Your task to perform on an android device: open app "Cash App" (install if not already installed) Image 0: 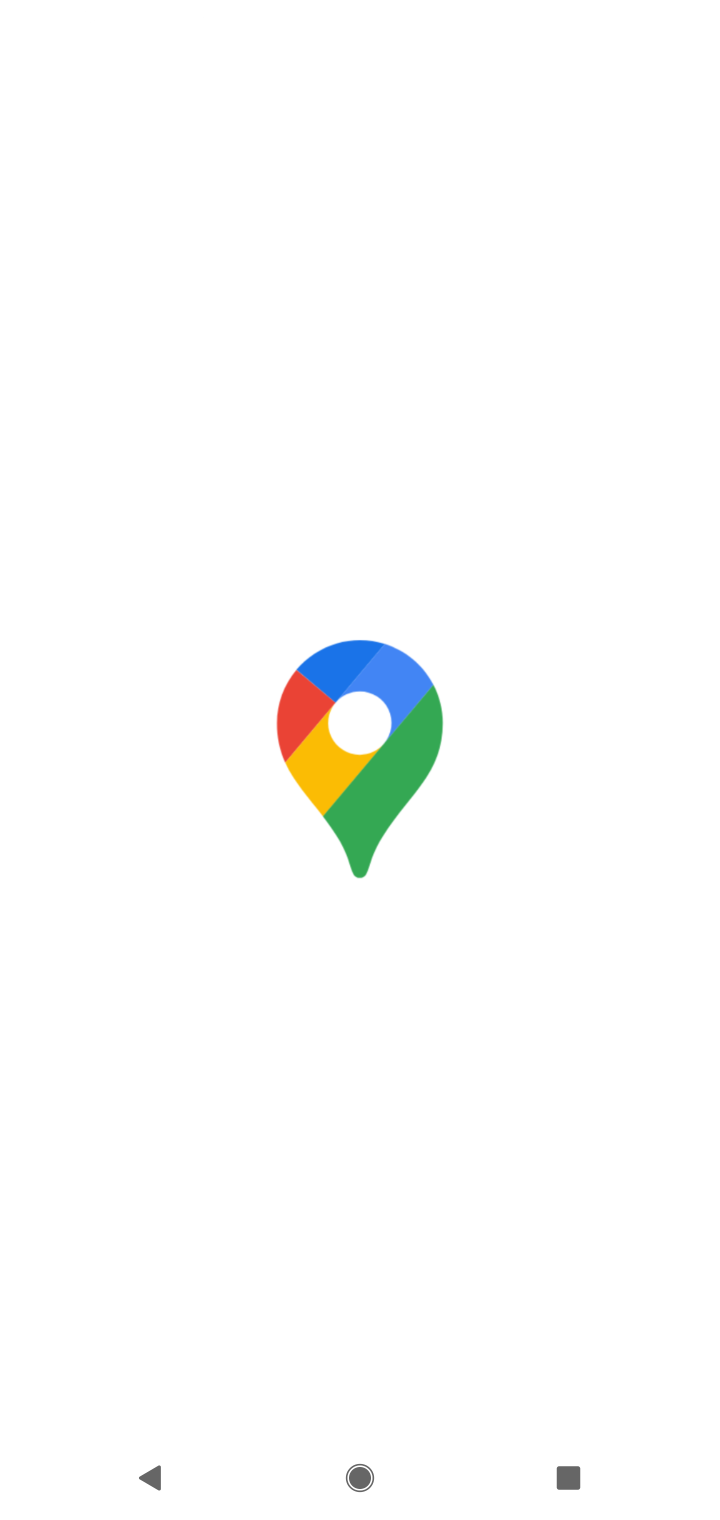
Step 0: press home button
Your task to perform on an android device: open app "Cash App" (install if not already installed) Image 1: 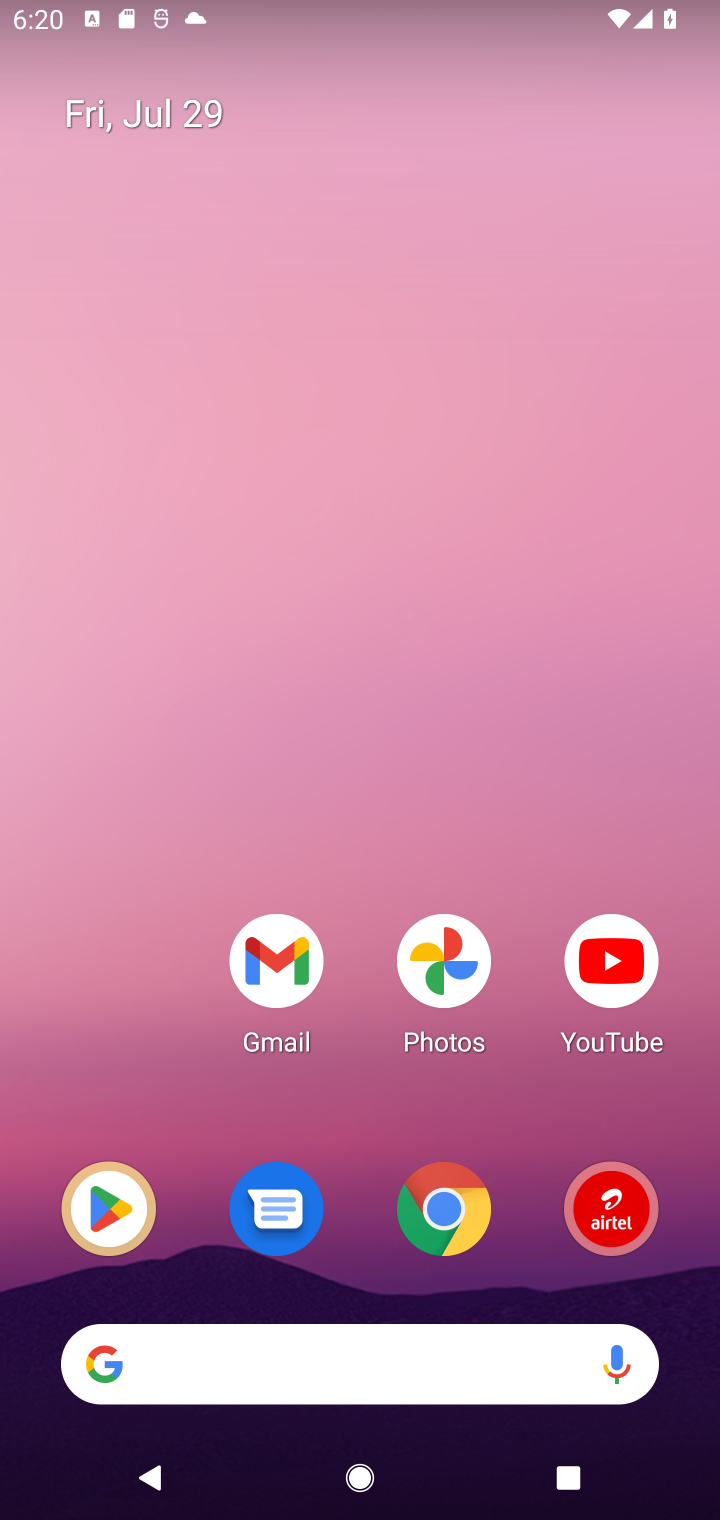
Step 1: click (109, 1208)
Your task to perform on an android device: open app "Cash App" (install if not already installed) Image 2: 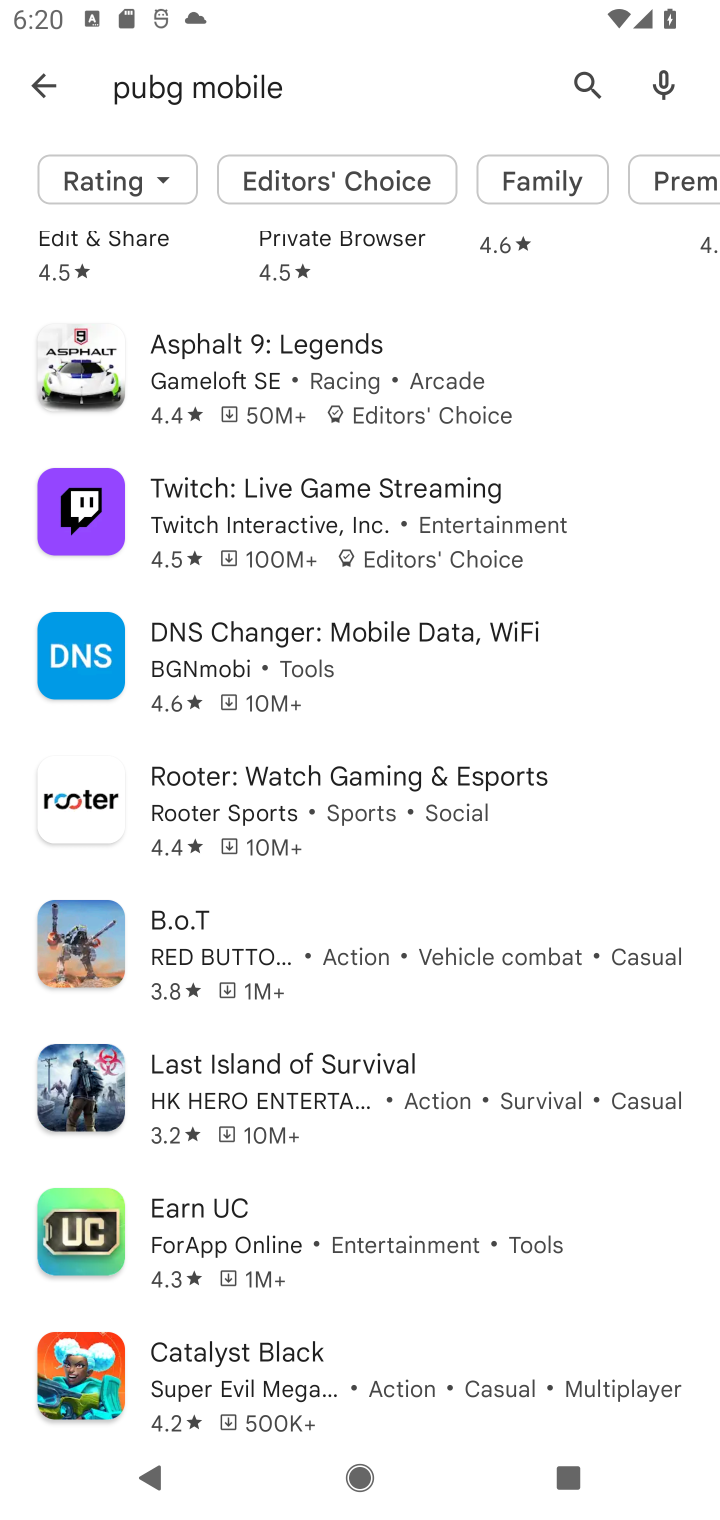
Step 2: click (578, 91)
Your task to perform on an android device: open app "Cash App" (install if not already installed) Image 3: 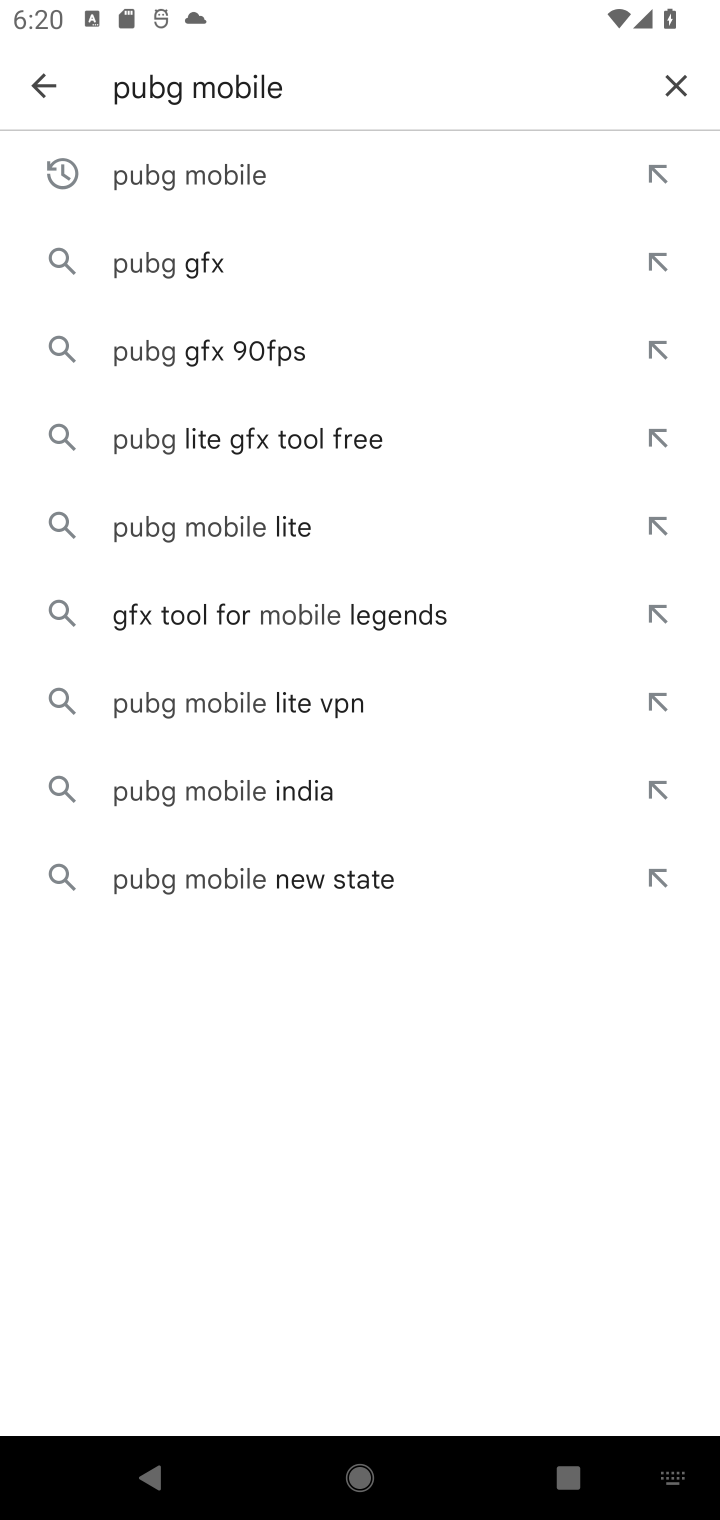
Step 3: click (659, 82)
Your task to perform on an android device: open app "Cash App" (install if not already installed) Image 4: 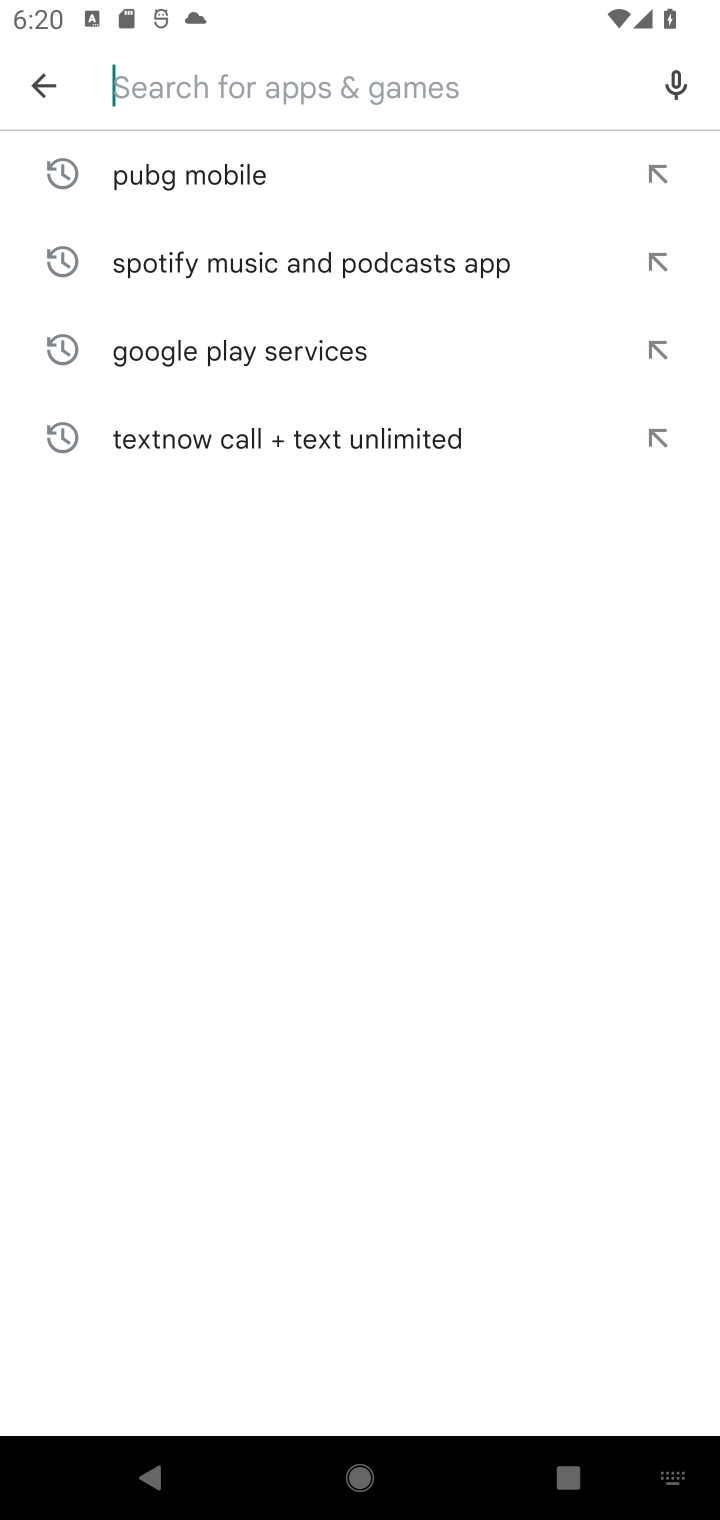
Step 4: type "Cash App"
Your task to perform on an android device: open app "Cash App" (install if not already installed) Image 5: 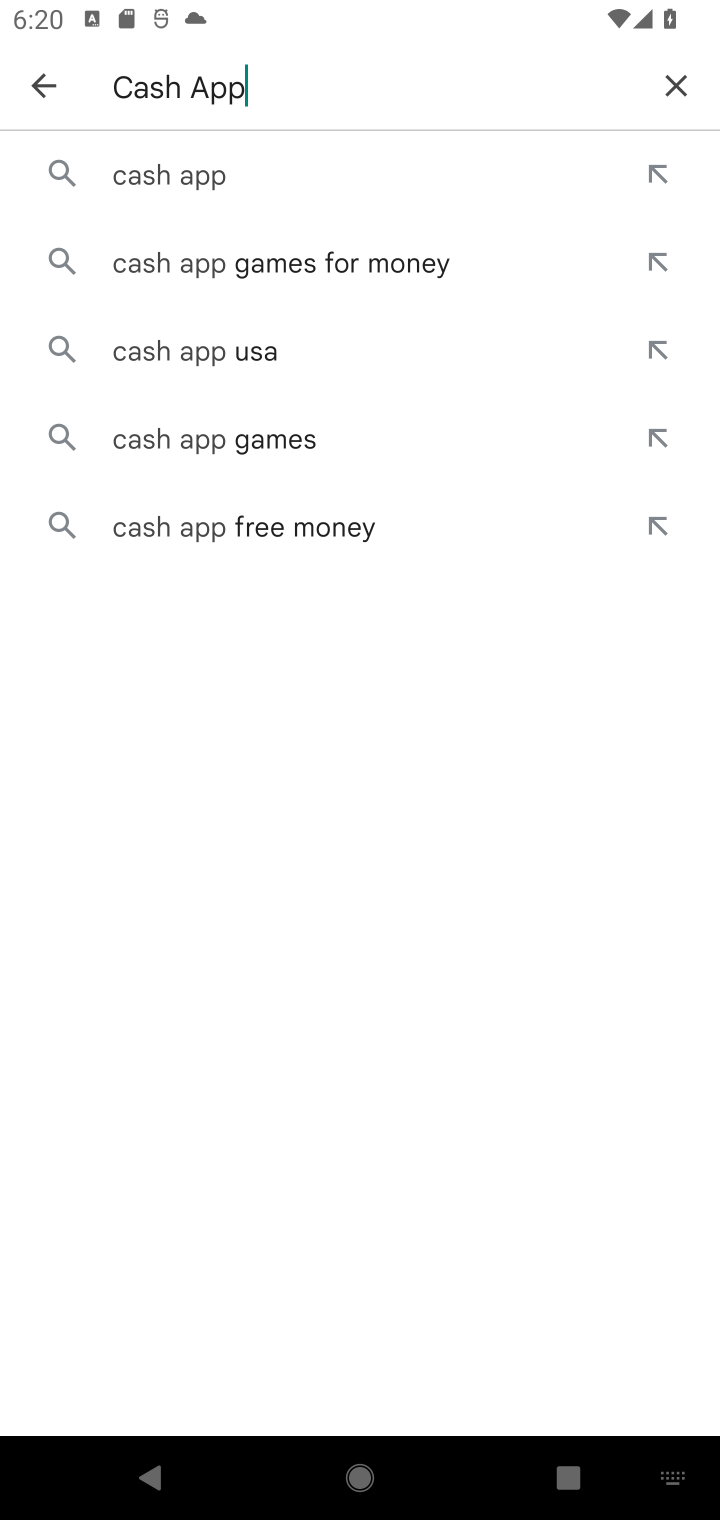
Step 5: click (171, 187)
Your task to perform on an android device: open app "Cash App" (install if not already installed) Image 6: 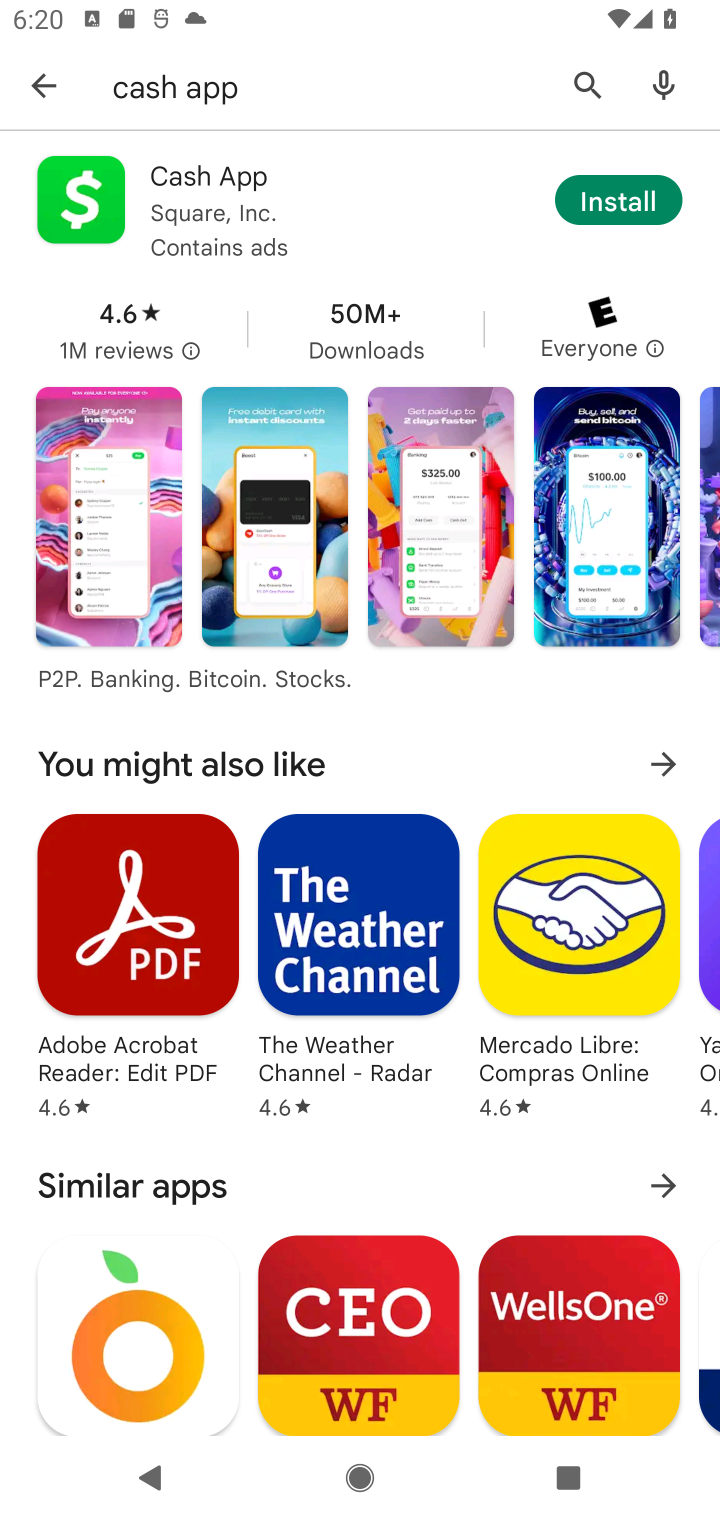
Step 6: click (612, 210)
Your task to perform on an android device: open app "Cash App" (install if not already installed) Image 7: 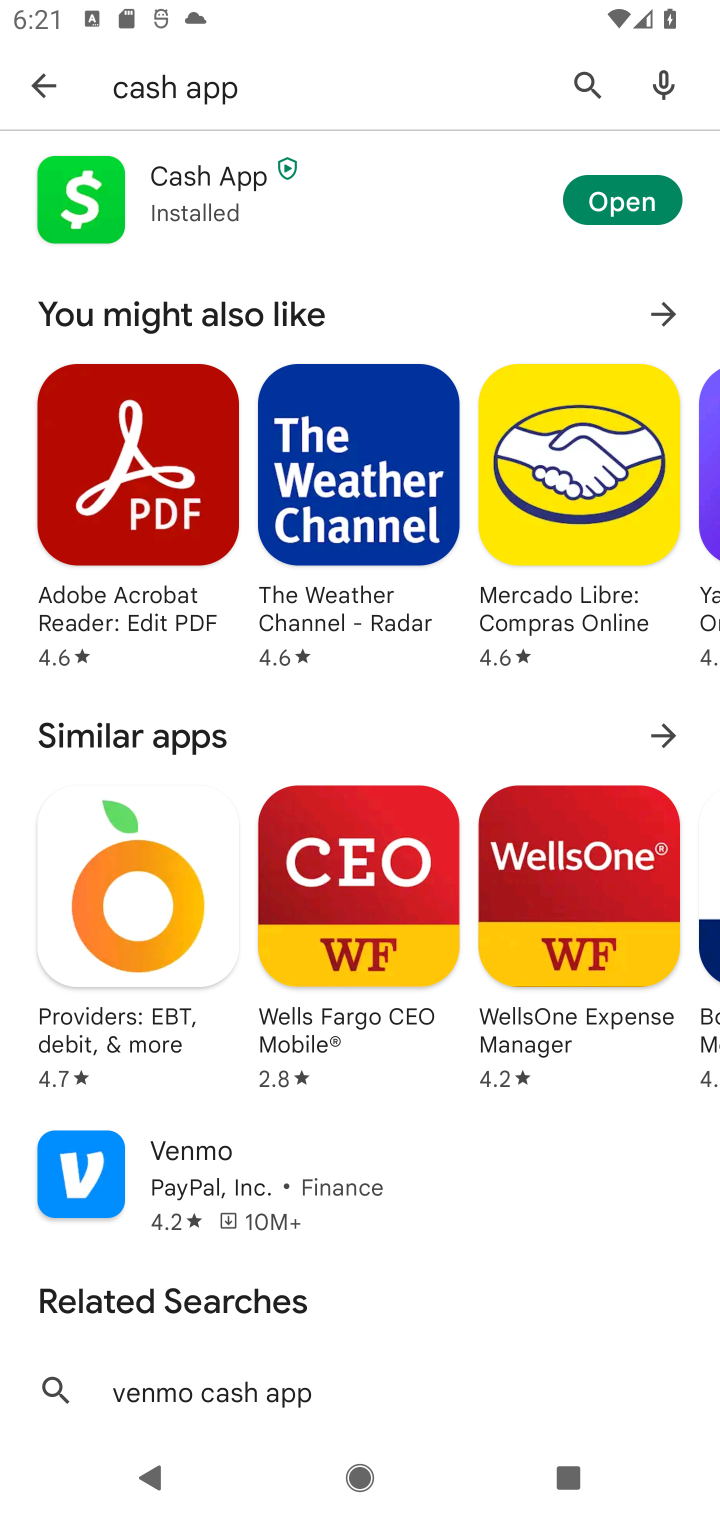
Step 7: click (612, 210)
Your task to perform on an android device: open app "Cash App" (install if not already installed) Image 8: 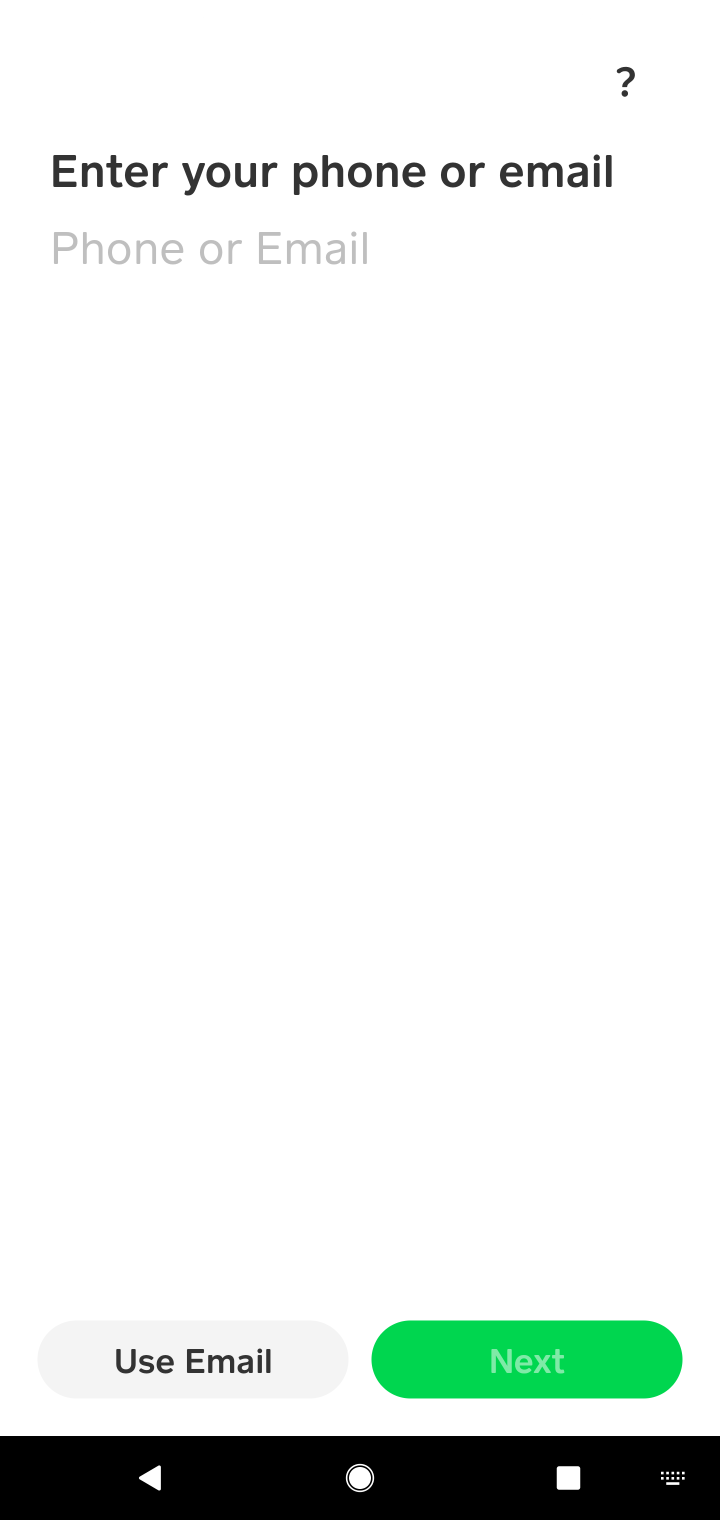
Step 8: task complete